Your task to perform on an android device: Open internet settings Image 0: 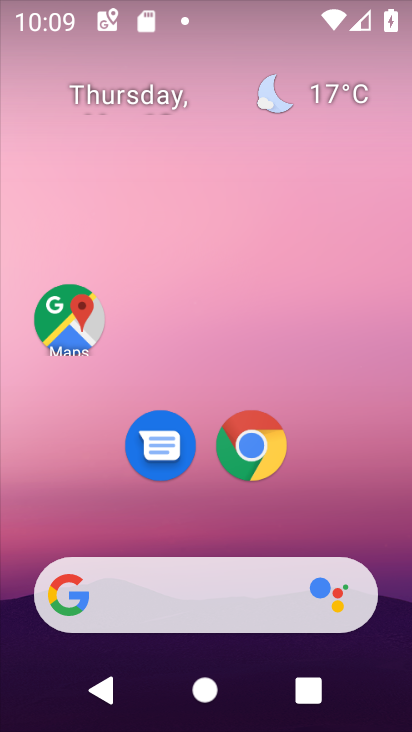
Step 0: drag from (323, 529) to (342, 202)
Your task to perform on an android device: Open internet settings Image 1: 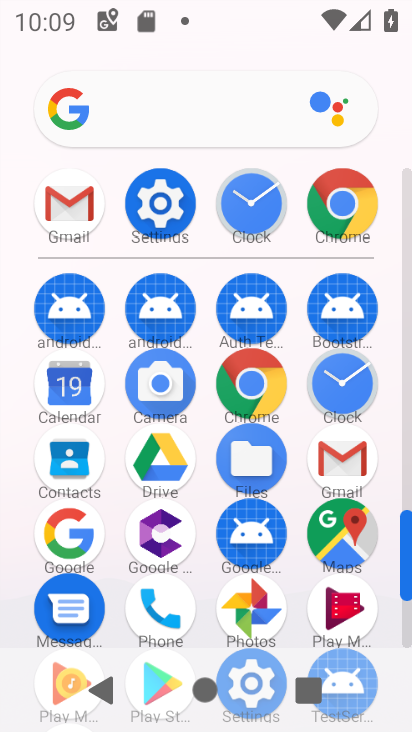
Step 1: click (164, 190)
Your task to perform on an android device: Open internet settings Image 2: 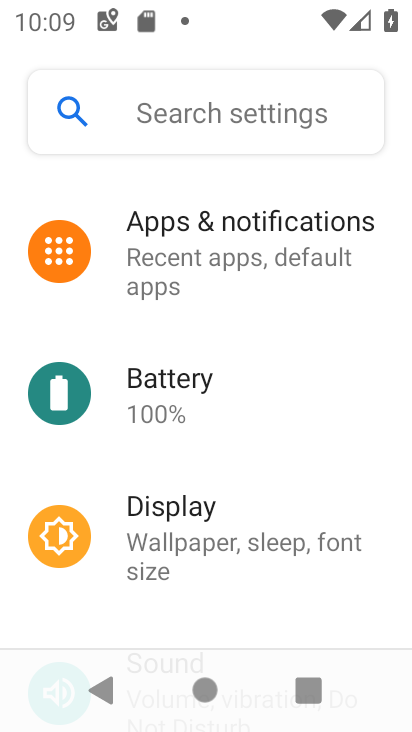
Step 2: drag from (223, 461) to (307, 609)
Your task to perform on an android device: Open internet settings Image 3: 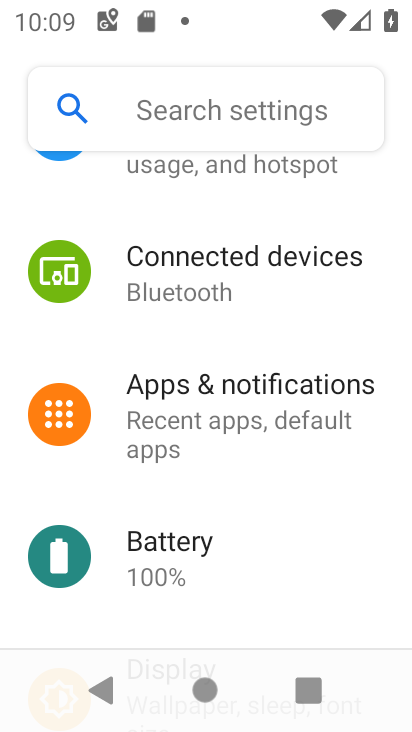
Step 3: drag from (293, 296) to (305, 532)
Your task to perform on an android device: Open internet settings Image 4: 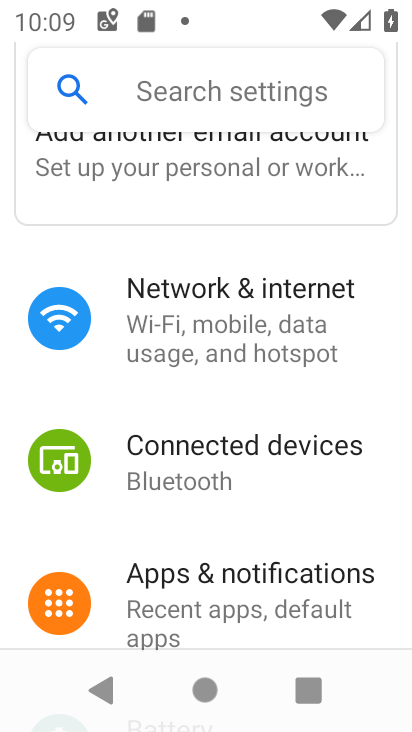
Step 4: click (295, 334)
Your task to perform on an android device: Open internet settings Image 5: 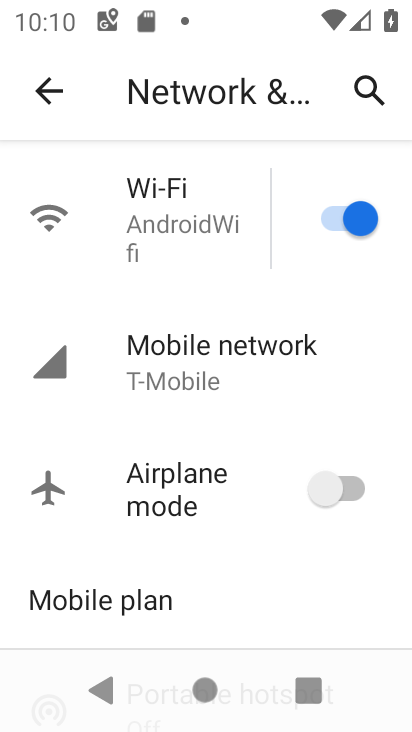
Step 5: task complete